Your task to perform on an android device: change keyboard looks Image 0: 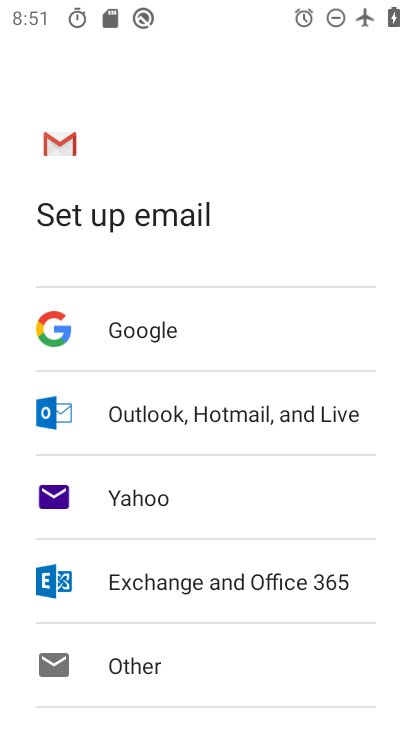
Step 0: press home button
Your task to perform on an android device: change keyboard looks Image 1: 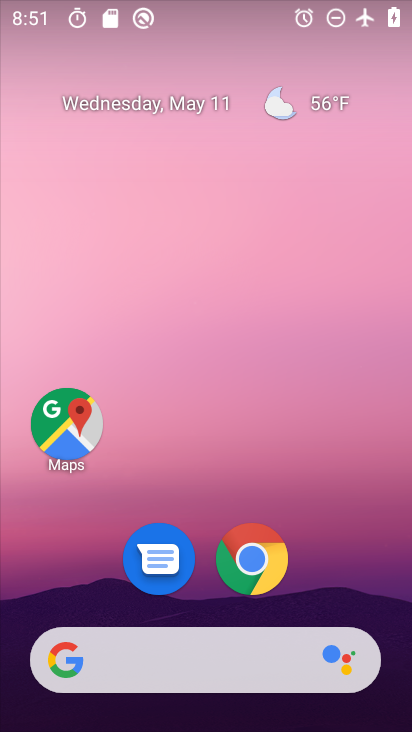
Step 1: drag from (342, 579) to (357, 9)
Your task to perform on an android device: change keyboard looks Image 2: 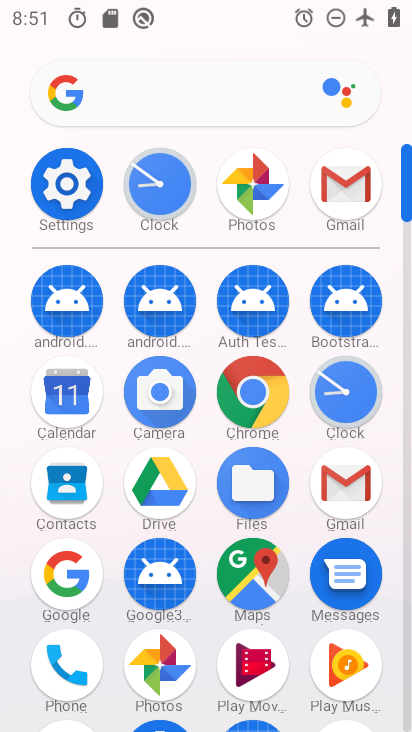
Step 2: click (67, 196)
Your task to perform on an android device: change keyboard looks Image 3: 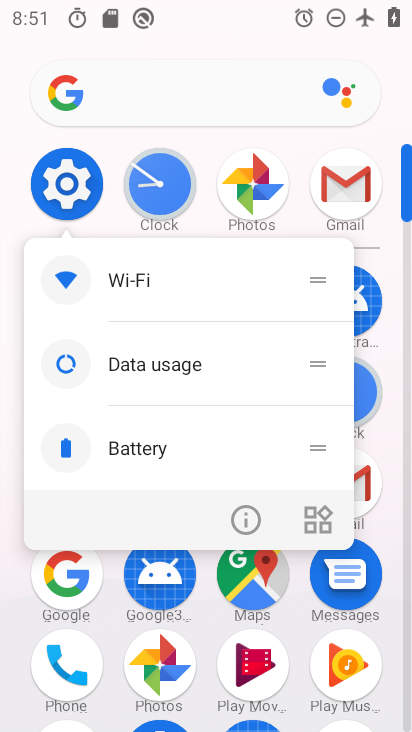
Step 3: click (68, 195)
Your task to perform on an android device: change keyboard looks Image 4: 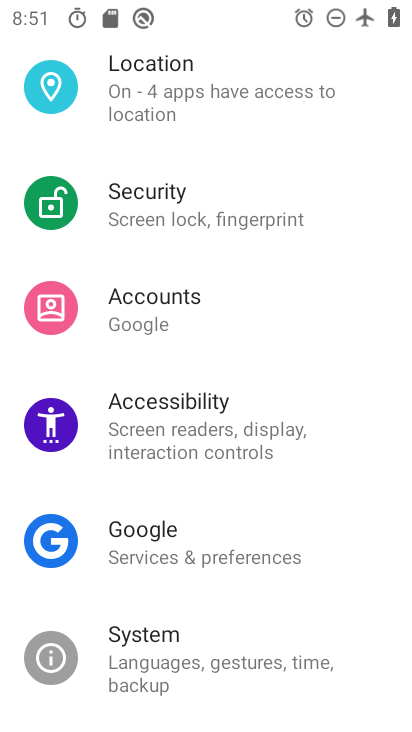
Step 4: drag from (214, 596) to (287, 102)
Your task to perform on an android device: change keyboard looks Image 5: 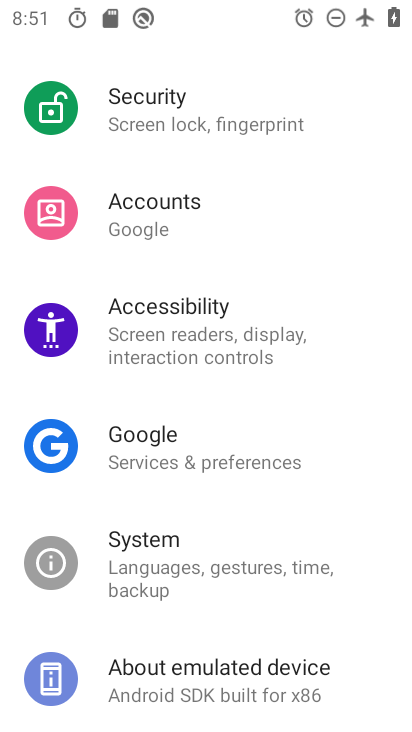
Step 5: click (197, 566)
Your task to perform on an android device: change keyboard looks Image 6: 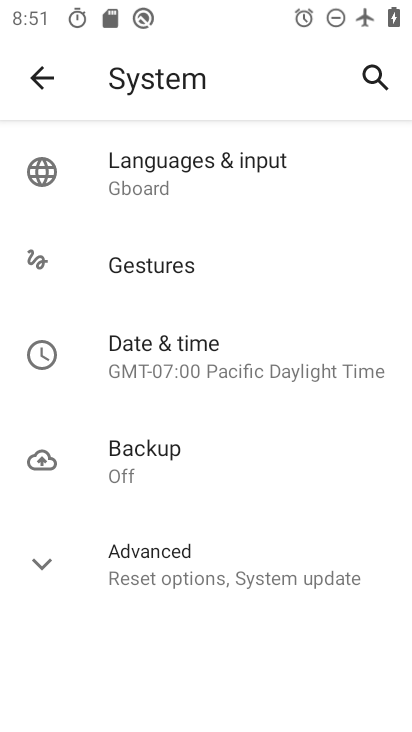
Step 6: click (204, 156)
Your task to perform on an android device: change keyboard looks Image 7: 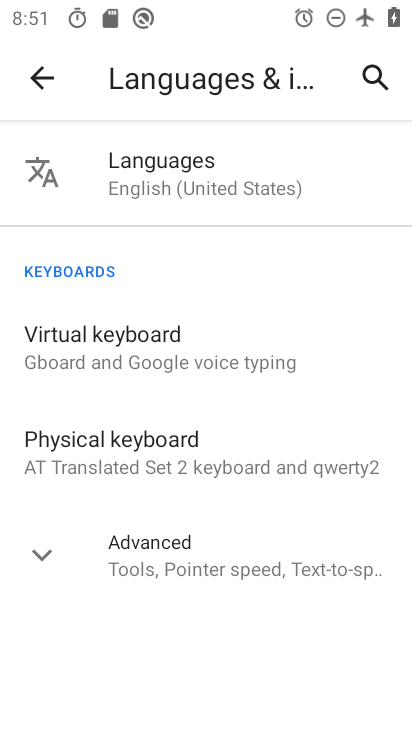
Step 7: click (145, 346)
Your task to perform on an android device: change keyboard looks Image 8: 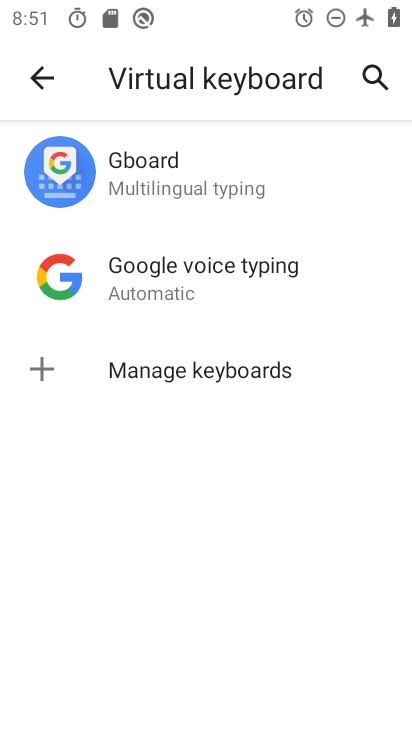
Step 8: click (218, 170)
Your task to perform on an android device: change keyboard looks Image 9: 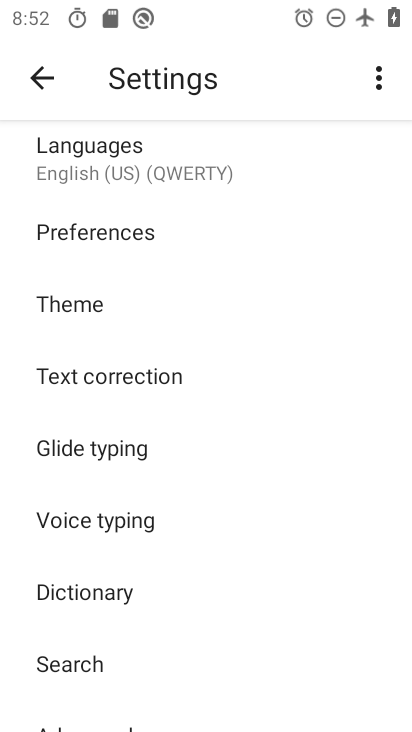
Step 9: click (72, 303)
Your task to perform on an android device: change keyboard looks Image 10: 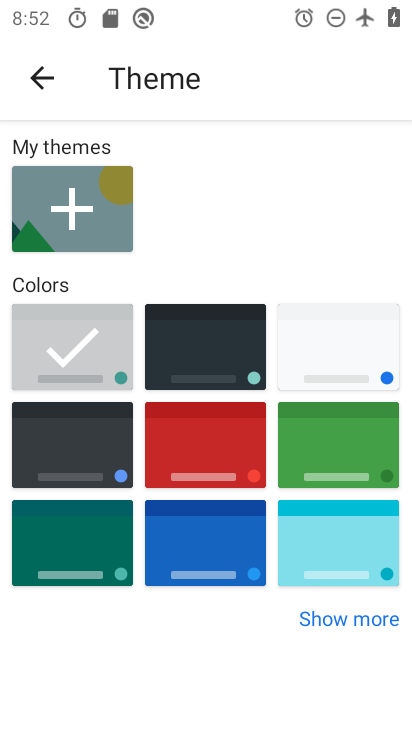
Step 10: click (322, 459)
Your task to perform on an android device: change keyboard looks Image 11: 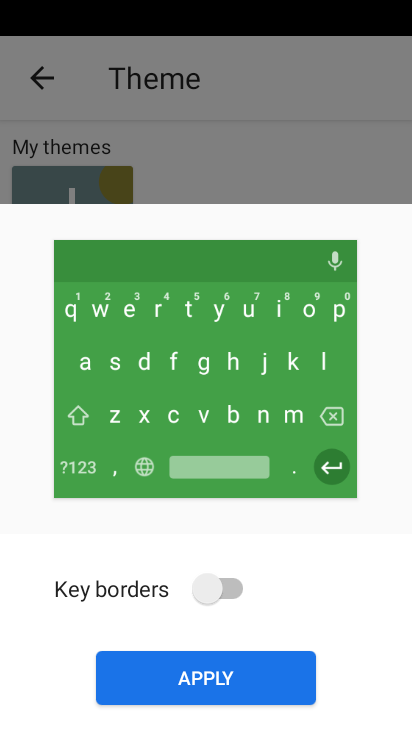
Step 11: task complete